Your task to perform on an android device: Add "acer nitro" to the cart on costco.com, then select checkout. Image 0: 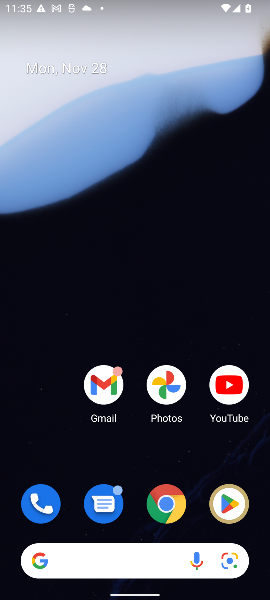
Step 0: click (167, 511)
Your task to perform on an android device: Add "acer nitro" to the cart on costco.com, then select checkout. Image 1: 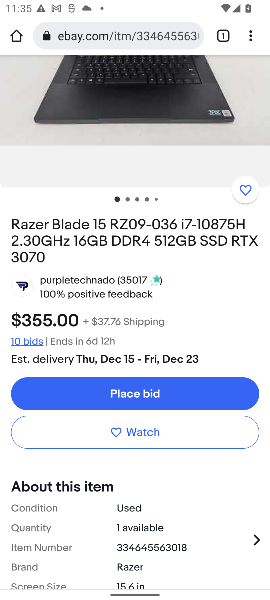
Step 1: click (124, 38)
Your task to perform on an android device: Add "acer nitro" to the cart on costco.com, then select checkout. Image 2: 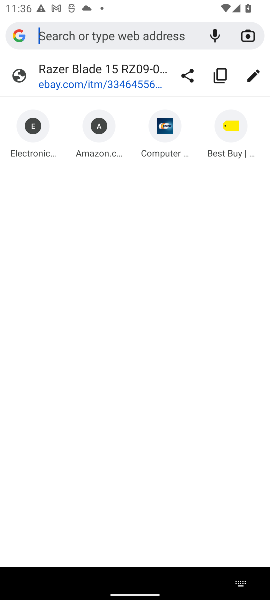
Step 2: click (124, 38)
Your task to perform on an android device: Add "acer nitro" to the cart on costco.com, then select checkout. Image 3: 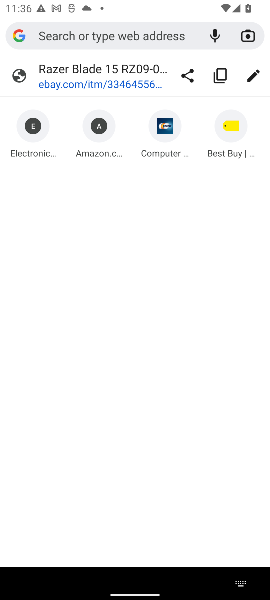
Step 3: type "costco.com"
Your task to perform on an android device: Add "acer nitro" to the cart on costco.com, then select checkout. Image 4: 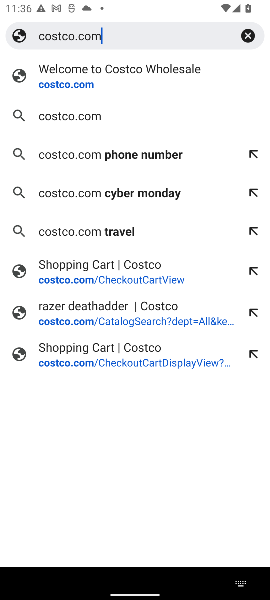
Step 4: click (63, 78)
Your task to perform on an android device: Add "acer nitro" to the cart on costco.com, then select checkout. Image 5: 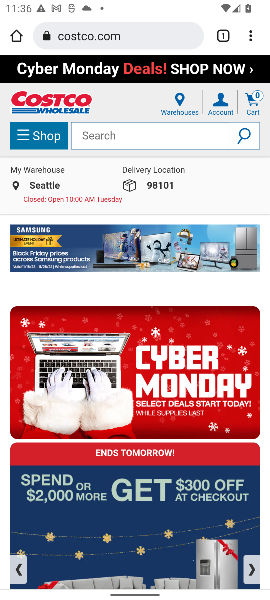
Step 5: click (101, 133)
Your task to perform on an android device: Add "acer nitro" to the cart on costco.com, then select checkout. Image 6: 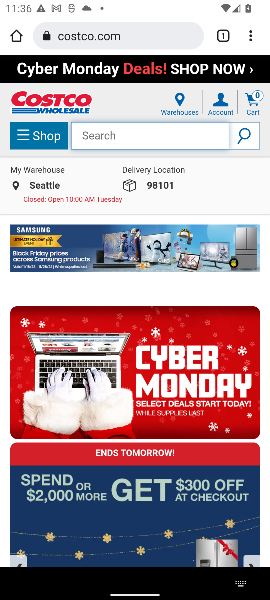
Step 6: type "acer nitro"
Your task to perform on an android device: Add "acer nitro" to the cart on costco.com, then select checkout. Image 7: 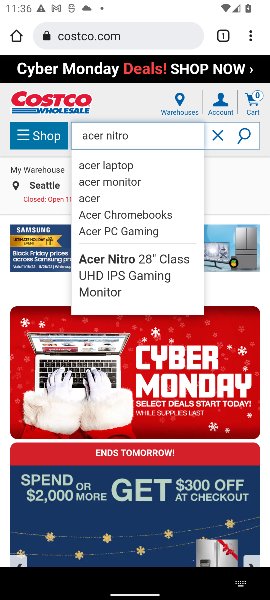
Step 7: click (247, 135)
Your task to perform on an android device: Add "acer nitro" to the cart on costco.com, then select checkout. Image 8: 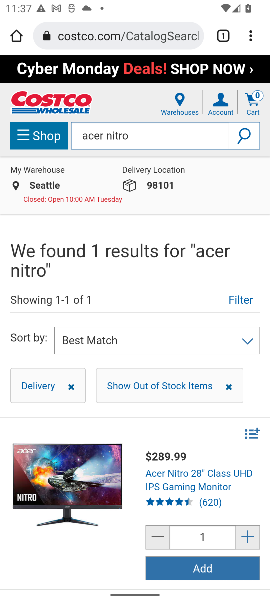
Step 8: click (137, 393)
Your task to perform on an android device: Add "acer nitro" to the cart on costco.com, then select checkout. Image 9: 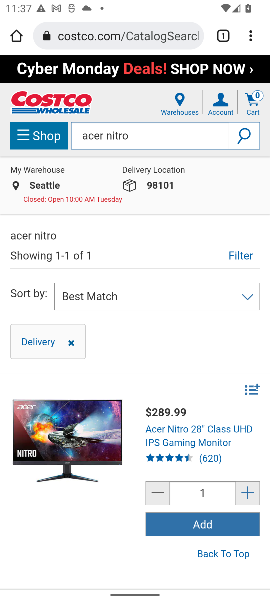
Step 9: click (193, 526)
Your task to perform on an android device: Add "acer nitro" to the cart on costco.com, then select checkout. Image 10: 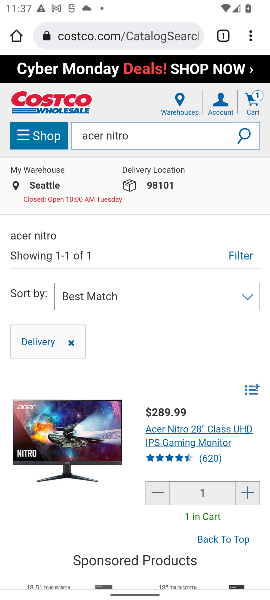
Step 10: click (256, 105)
Your task to perform on an android device: Add "acer nitro" to the cart on costco.com, then select checkout. Image 11: 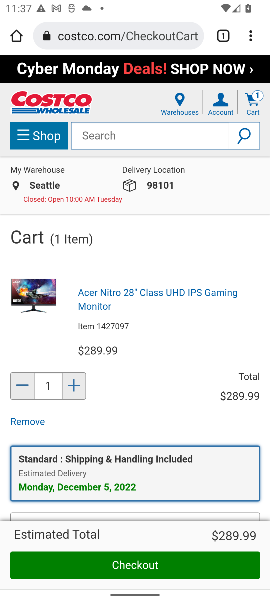
Step 11: click (113, 563)
Your task to perform on an android device: Add "acer nitro" to the cart on costco.com, then select checkout. Image 12: 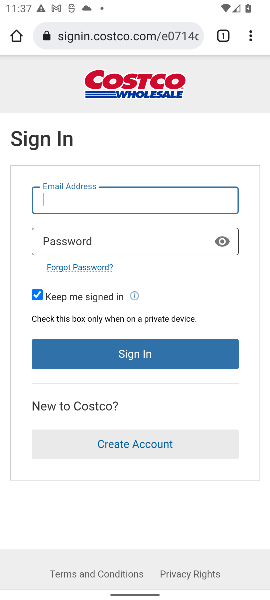
Step 12: task complete